Your task to perform on an android device: change the clock style Image 0: 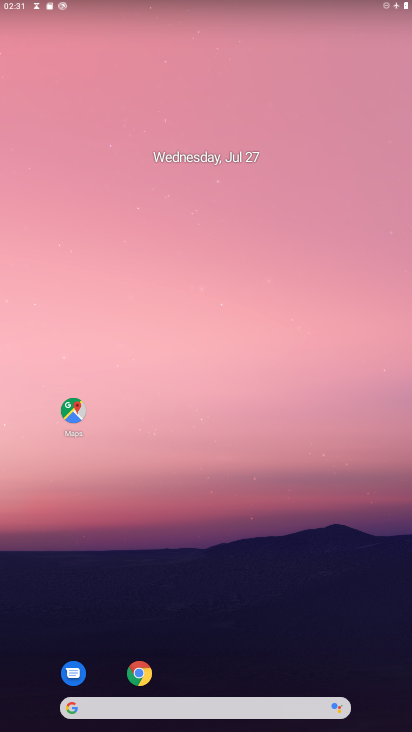
Step 0: drag from (242, 627) to (250, 107)
Your task to perform on an android device: change the clock style Image 1: 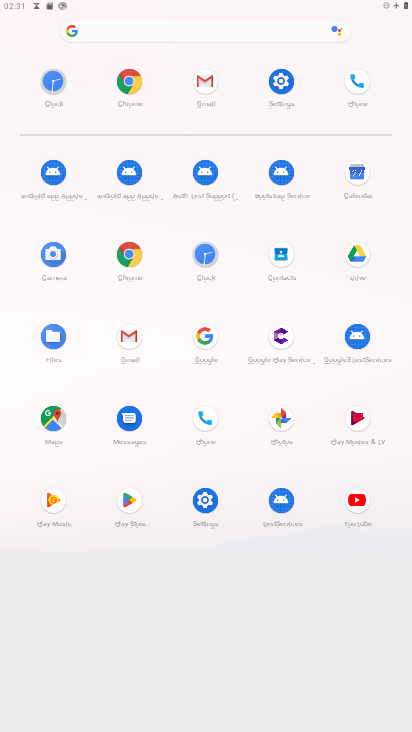
Step 1: click (202, 258)
Your task to perform on an android device: change the clock style Image 2: 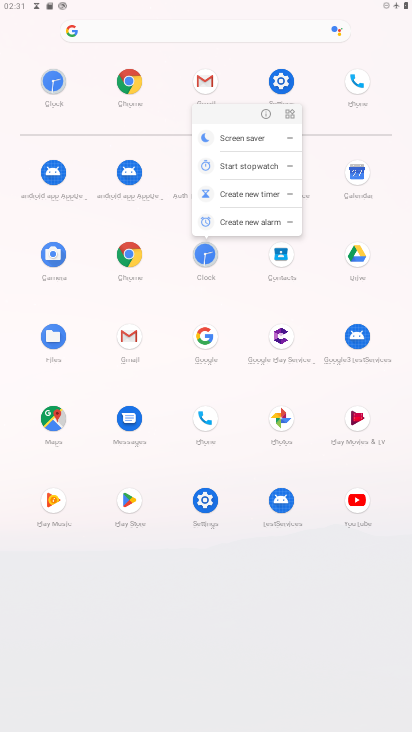
Step 2: click (202, 258)
Your task to perform on an android device: change the clock style Image 3: 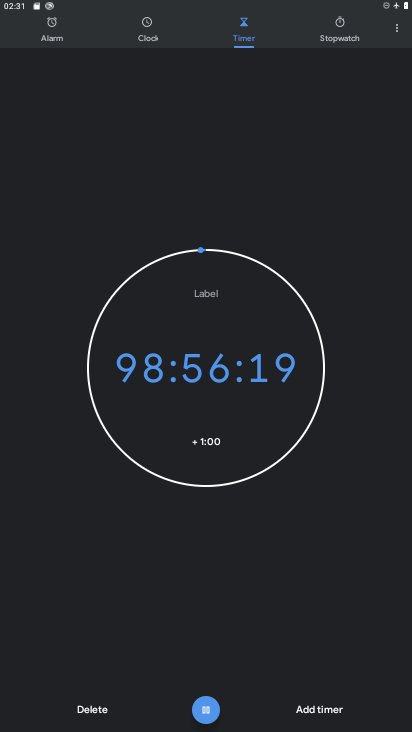
Step 3: click (395, 35)
Your task to perform on an android device: change the clock style Image 4: 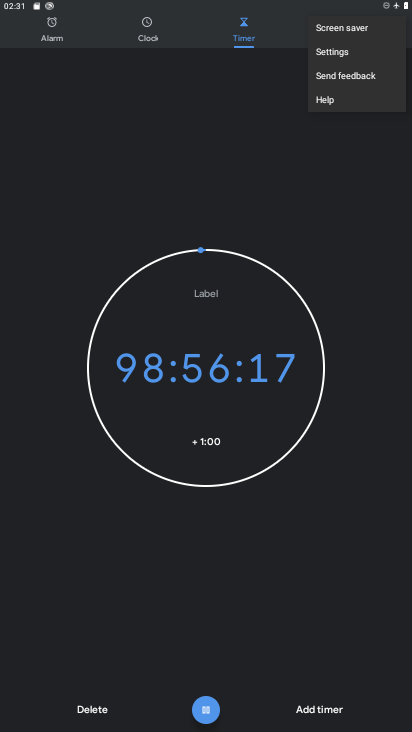
Step 4: click (348, 53)
Your task to perform on an android device: change the clock style Image 5: 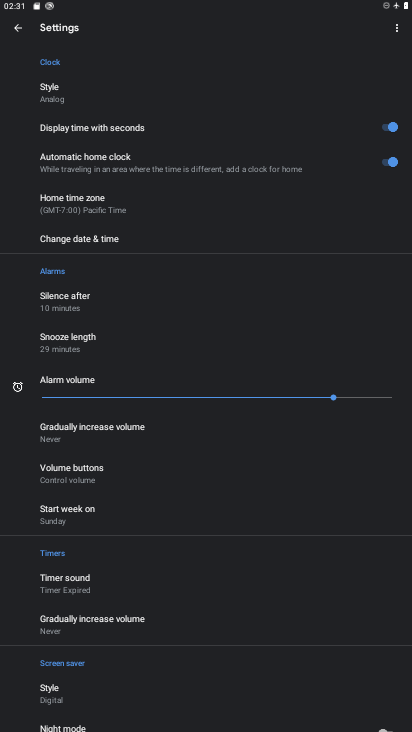
Step 5: click (55, 84)
Your task to perform on an android device: change the clock style Image 6: 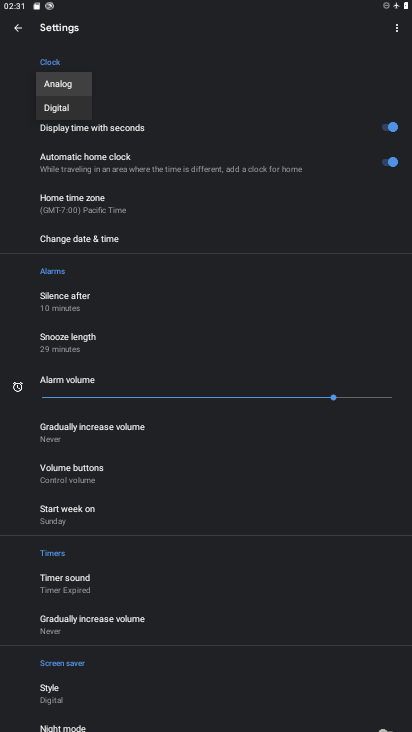
Step 6: click (69, 110)
Your task to perform on an android device: change the clock style Image 7: 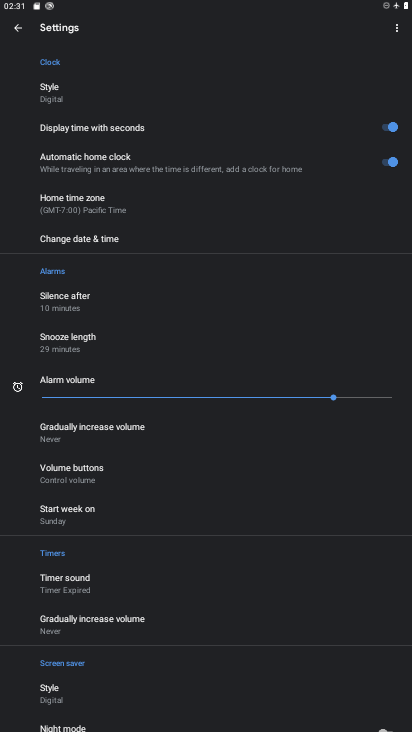
Step 7: task complete